Your task to perform on an android device: add a contact in the contacts app Image 0: 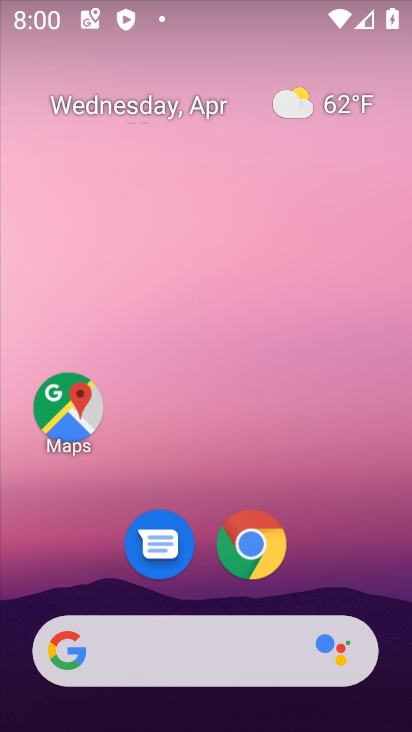
Step 0: drag from (323, 488) to (233, 168)
Your task to perform on an android device: add a contact in the contacts app Image 1: 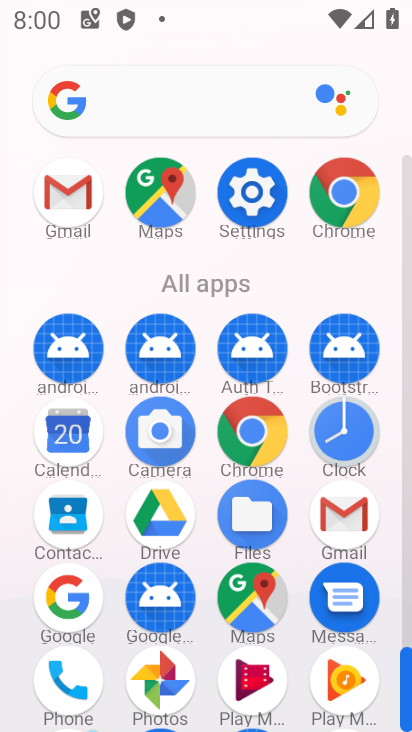
Step 1: click (60, 518)
Your task to perform on an android device: add a contact in the contacts app Image 2: 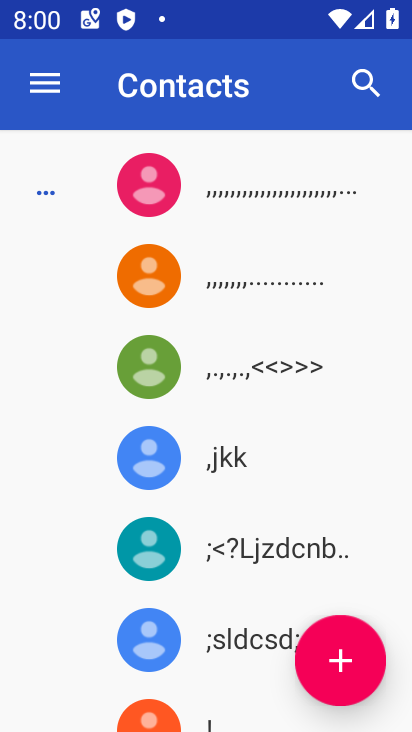
Step 2: click (335, 668)
Your task to perform on an android device: add a contact in the contacts app Image 3: 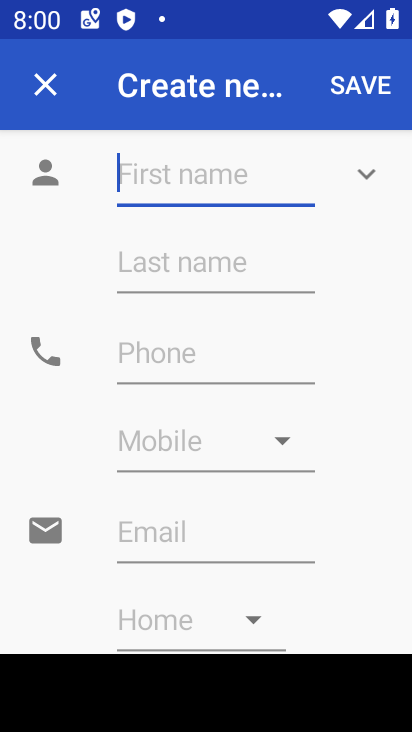
Step 3: click (154, 177)
Your task to perform on an android device: add a contact in the contacts app Image 4: 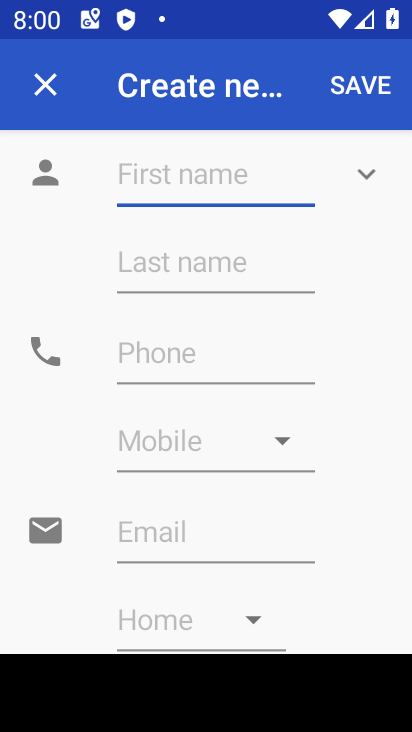
Step 4: type "pria"
Your task to perform on an android device: add a contact in the contacts app Image 5: 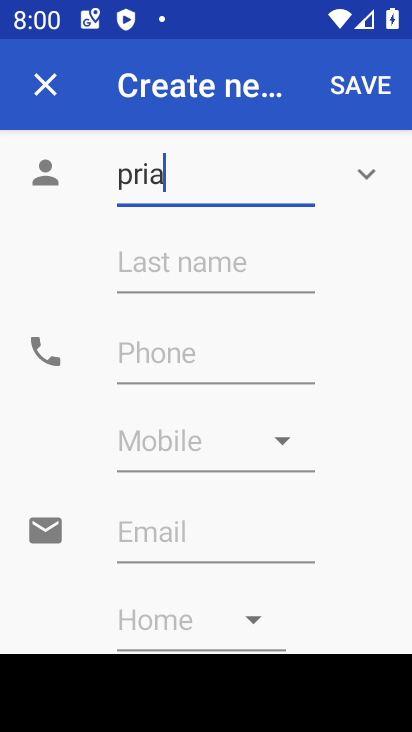
Step 5: click (215, 367)
Your task to perform on an android device: add a contact in the contacts app Image 6: 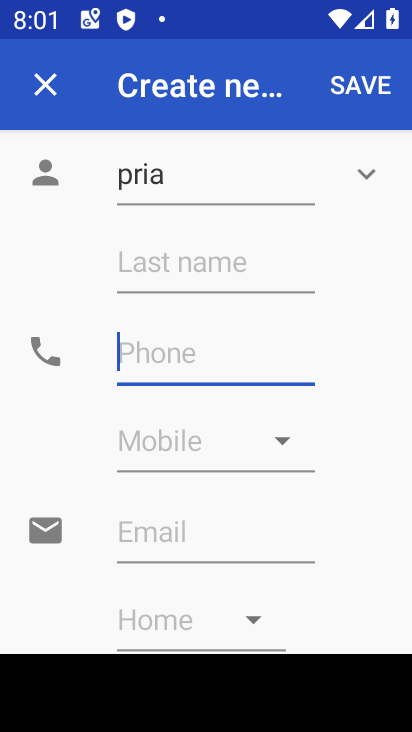
Step 6: type "7623653986"
Your task to perform on an android device: add a contact in the contacts app Image 7: 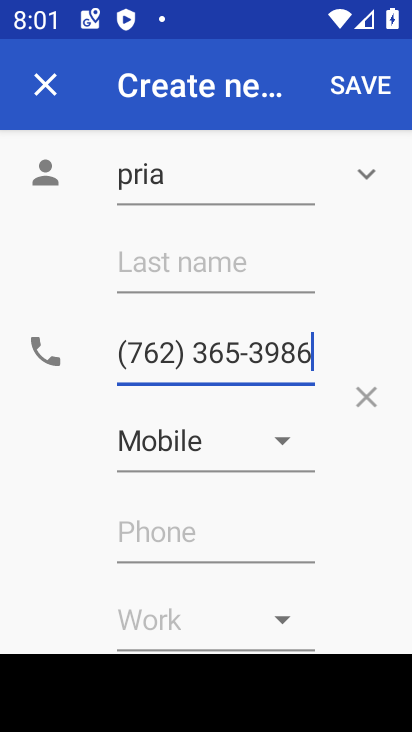
Step 7: click (348, 88)
Your task to perform on an android device: add a contact in the contacts app Image 8: 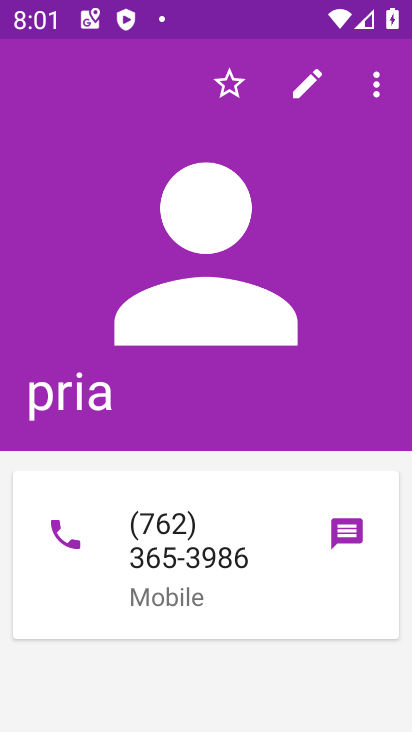
Step 8: task complete